Your task to perform on an android device: Open display settings Image 0: 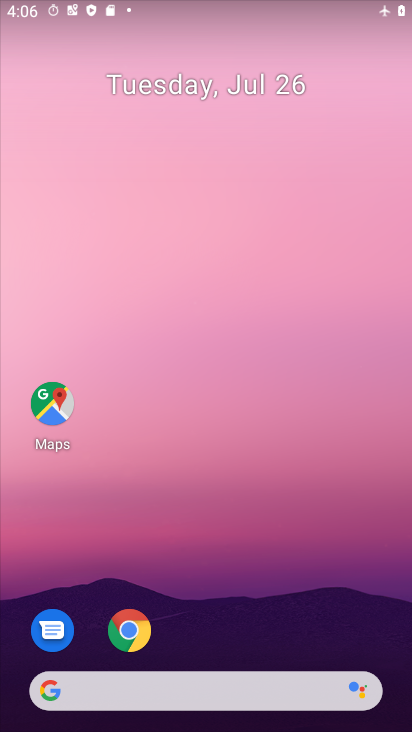
Step 0: drag from (217, 537) to (176, 297)
Your task to perform on an android device: Open display settings Image 1: 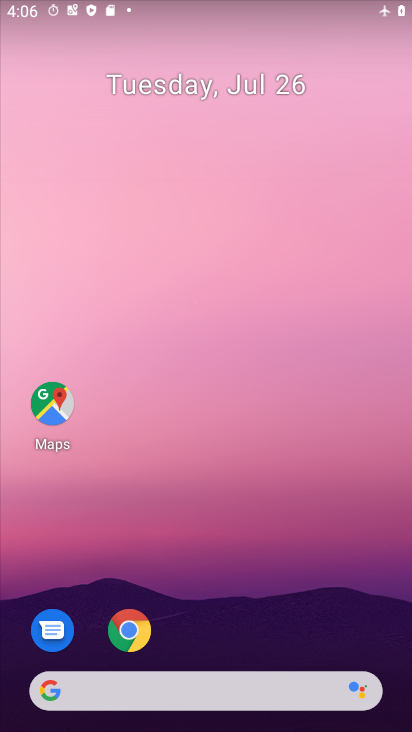
Step 1: drag from (242, 642) to (228, 16)
Your task to perform on an android device: Open display settings Image 2: 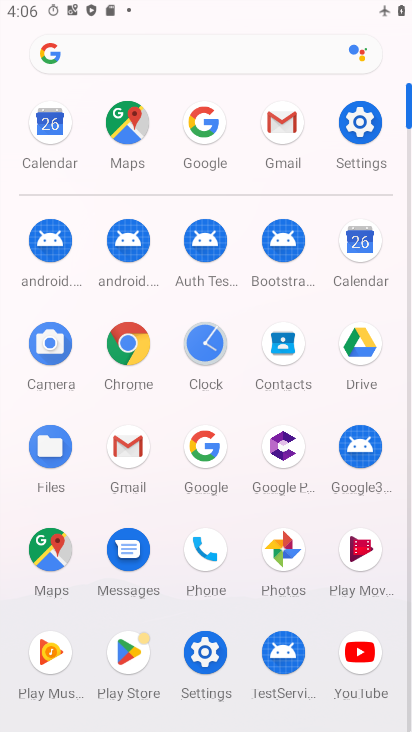
Step 2: click (367, 134)
Your task to perform on an android device: Open display settings Image 3: 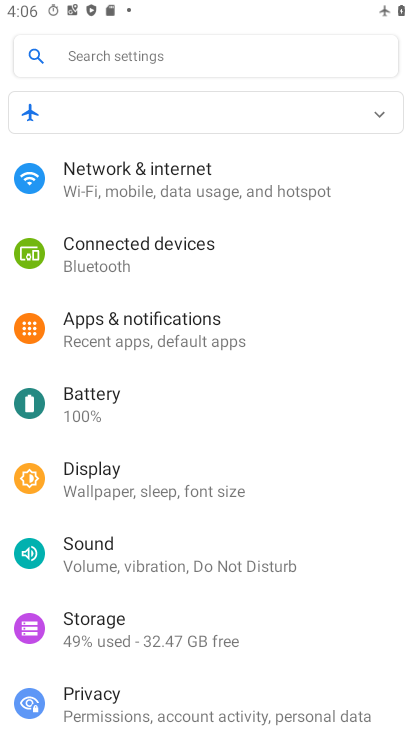
Step 3: click (179, 474)
Your task to perform on an android device: Open display settings Image 4: 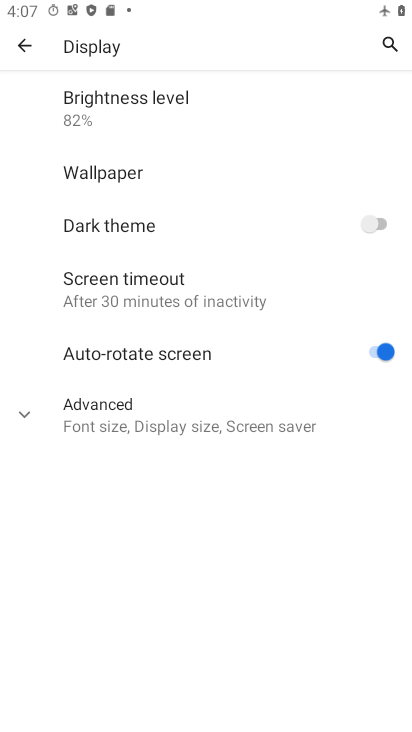
Step 4: task complete